Your task to perform on an android device: Go to sound settings Image 0: 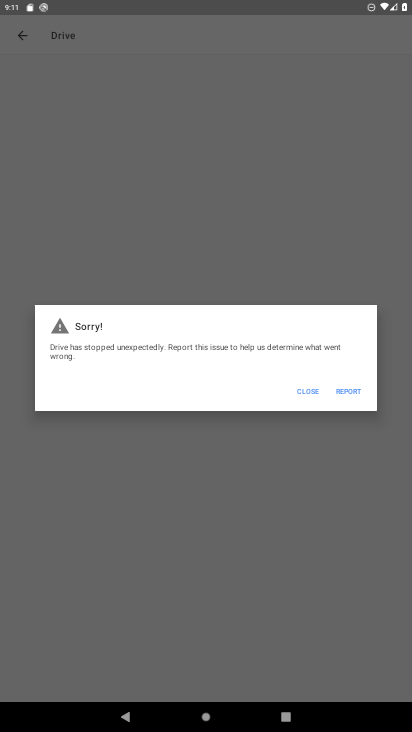
Step 0: press home button
Your task to perform on an android device: Go to sound settings Image 1: 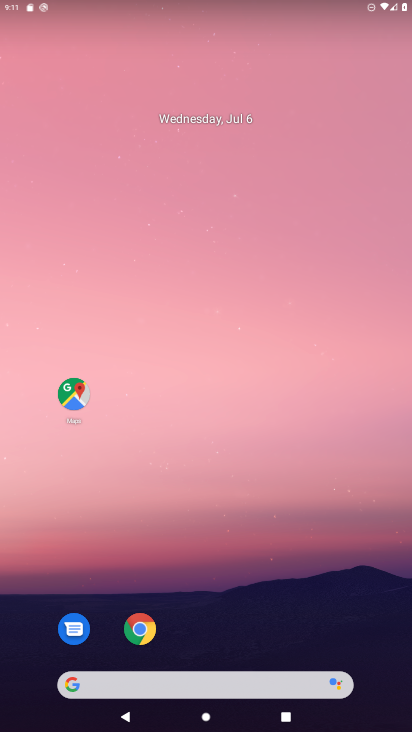
Step 1: drag from (213, 684) to (246, 0)
Your task to perform on an android device: Go to sound settings Image 2: 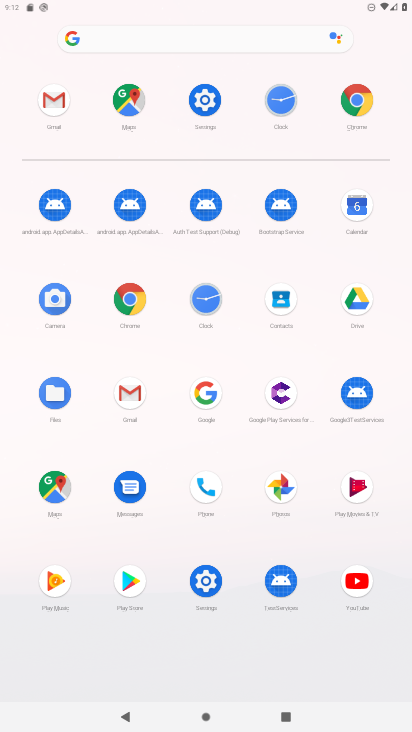
Step 2: click (198, 103)
Your task to perform on an android device: Go to sound settings Image 3: 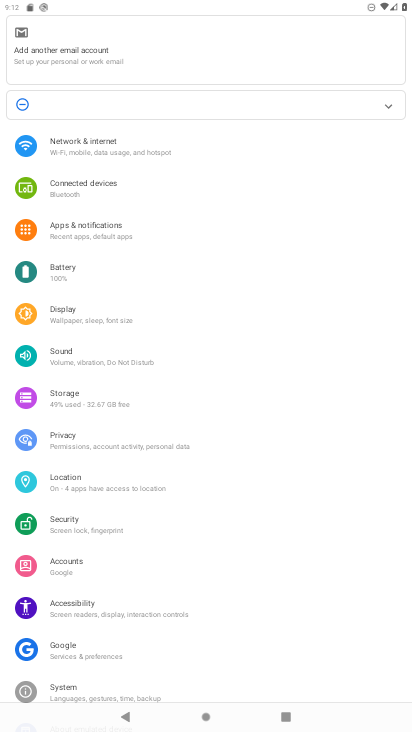
Step 3: click (74, 349)
Your task to perform on an android device: Go to sound settings Image 4: 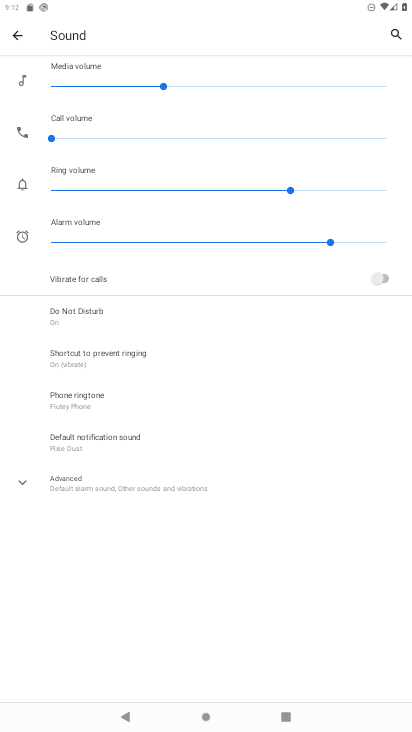
Step 4: task complete